Your task to perform on an android device: Open Chrome and go to settings Image 0: 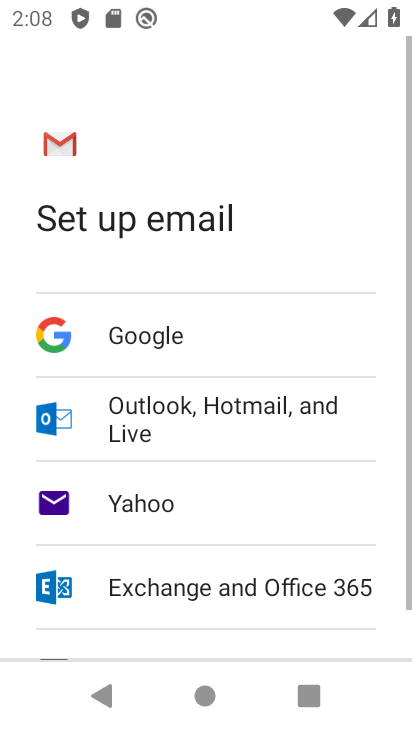
Step 0: press home button
Your task to perform on an android device: Open Chrome and go to settings Image 1: 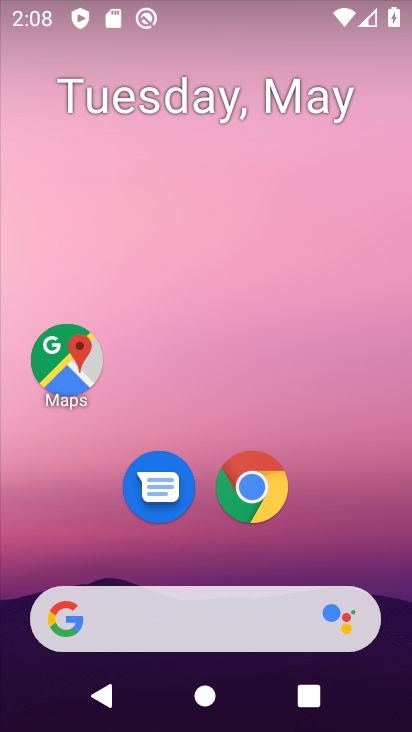
Step 1: click (272, 494)
Your task to perform on an android device: Open Chrome and go to settings Image 2: 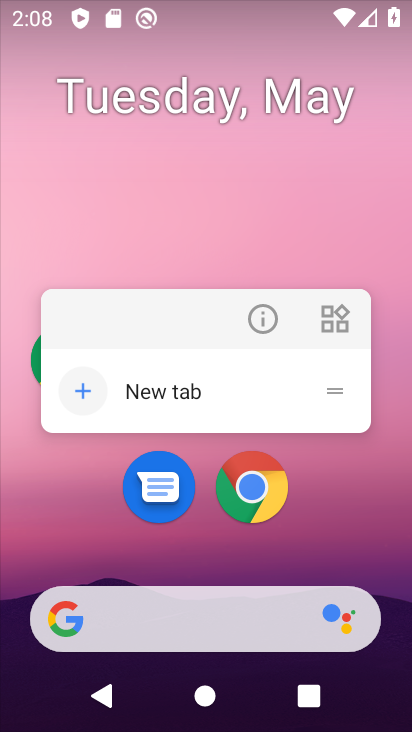
Step 2: click (263, 504)
Your task to perform on an android device: Open Chrome and go to settings Image 3: 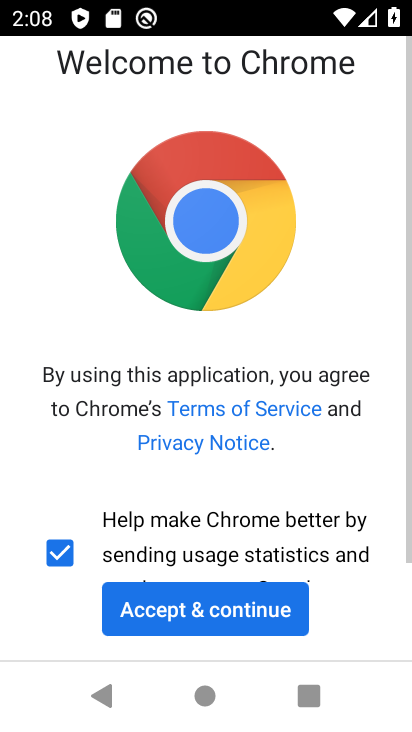
Step 3: click (246, 600)
Your task to perform on an android device: Open Chrome and go to settings Image 4: 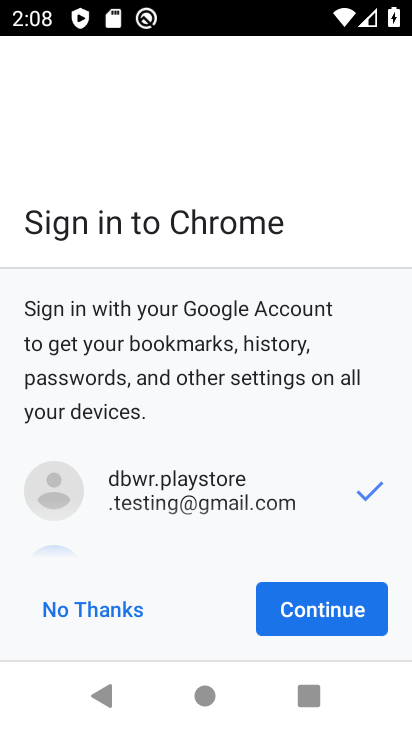
Step 4: click (333, 607)
Your task to perform on an android device: Open Chrome and go to settings Image 5: 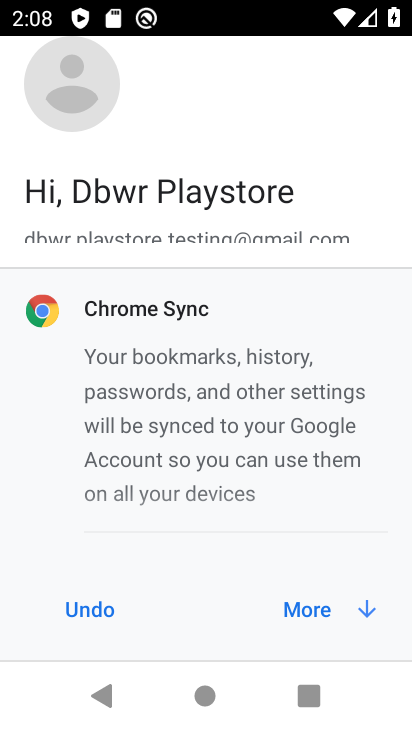
Step 5: click (304, 619)
Your task to perform on an android device: Open Chrome and go to settings Image 6: 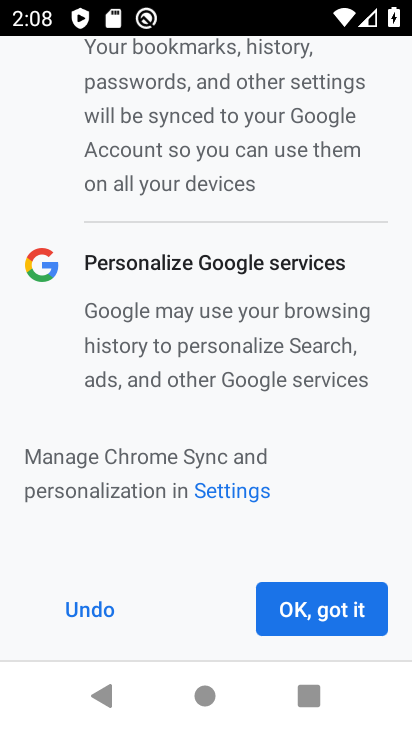
Step 6: click (304, 619)
Your task to perform on an android device: Open Chrome and go to settings Image 7: 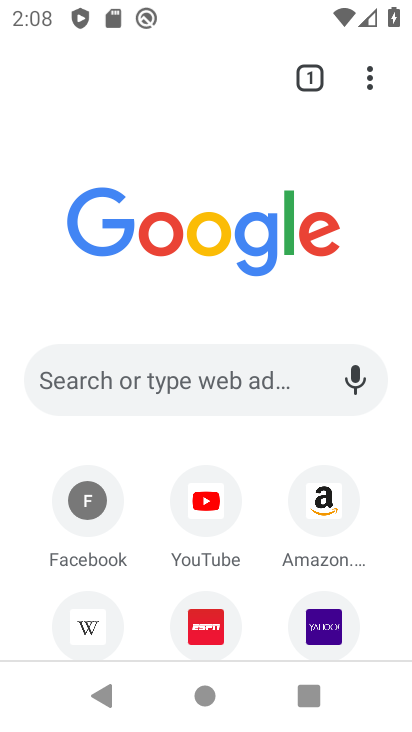
Step 7: task complete